Your task to perform on an android device: What is the recent news? Image 0: 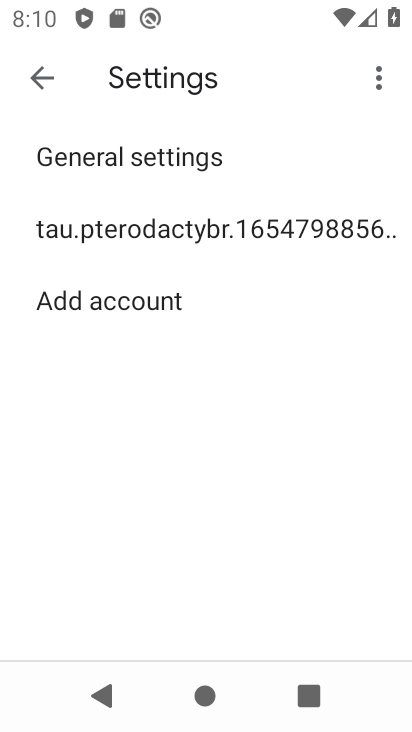
Step 0: press back button
Your task to perform on an android device: What is the recent news? Image 1: 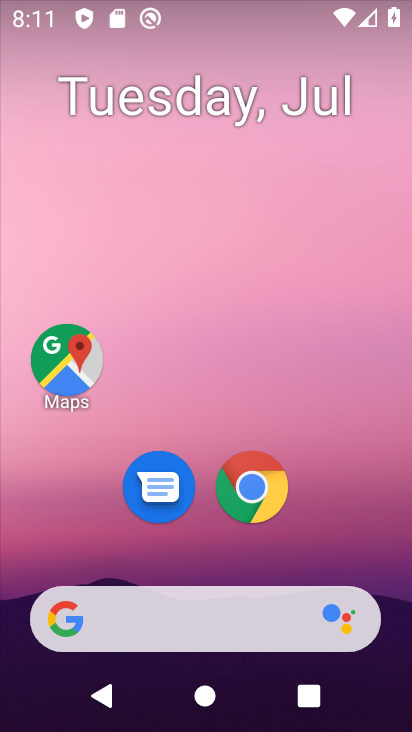
Step 1: click (185, 611)
Your task to perform on an android device: What is the recent news? Image 2: 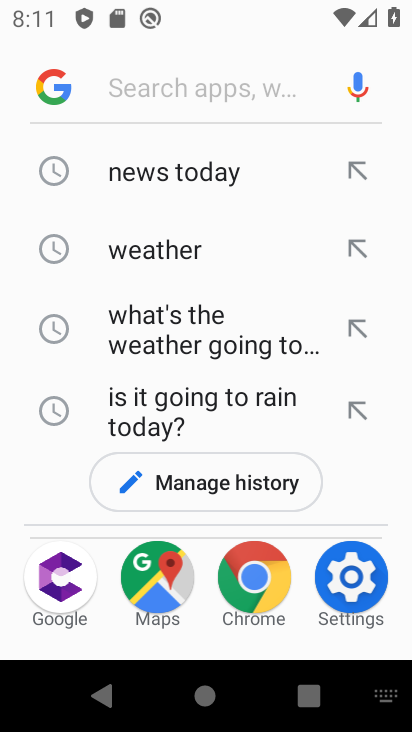
Step 2: drag from (234, 392) to (279, 64)
Your task to perform on an android device: What is the recent news? Image 3: 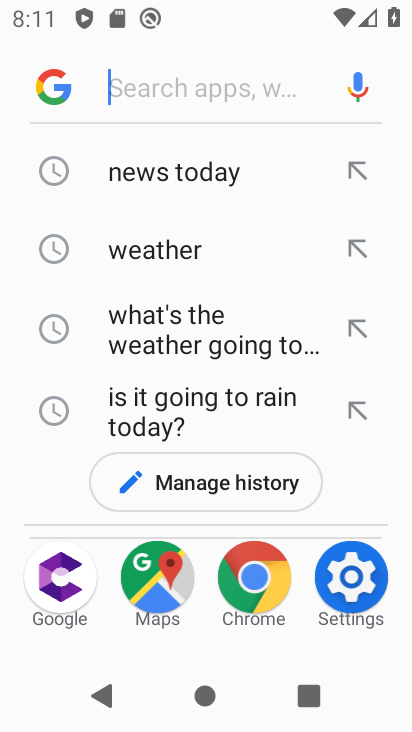
Step 3: click (170, 86)
Your task to perform on an android device: What is the recent news? Image 4: 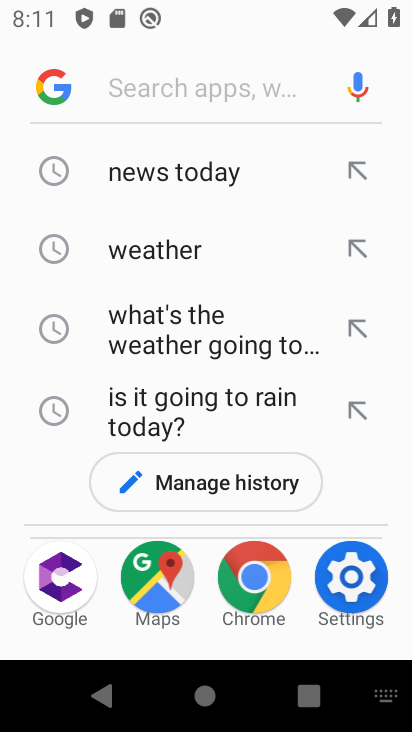
Step 4: type "recent news"
Your task to perform on an android device: What is the recent news? Image 5: 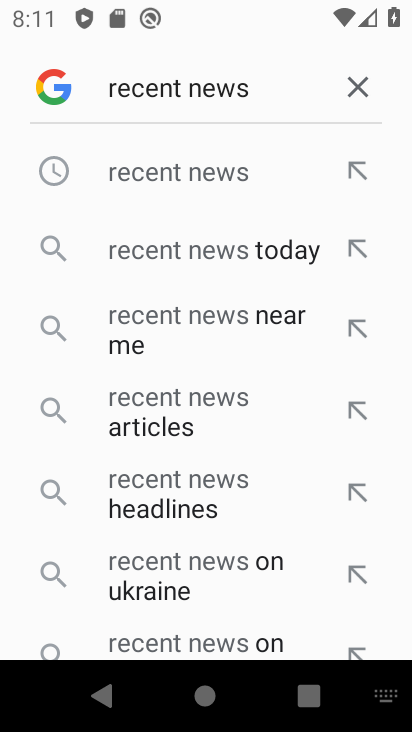
Step 5: click (166, 161)
Your task to perform on an android device: What is the recent news? Image 6: 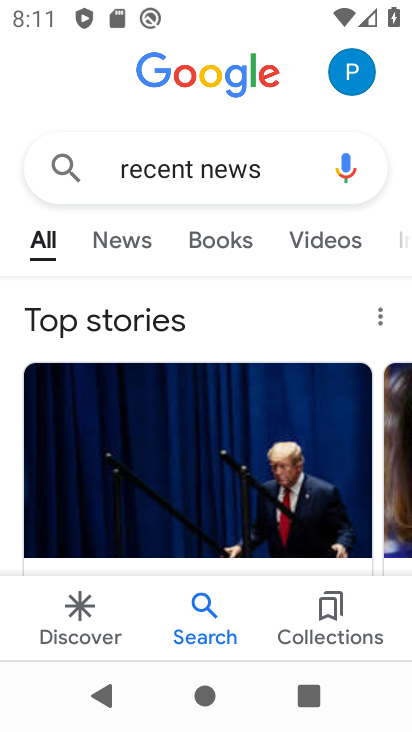
Step 6: task complete